Your task to perform on an android device: Open the Play Movies app and select the watchlist tab. Image 0: 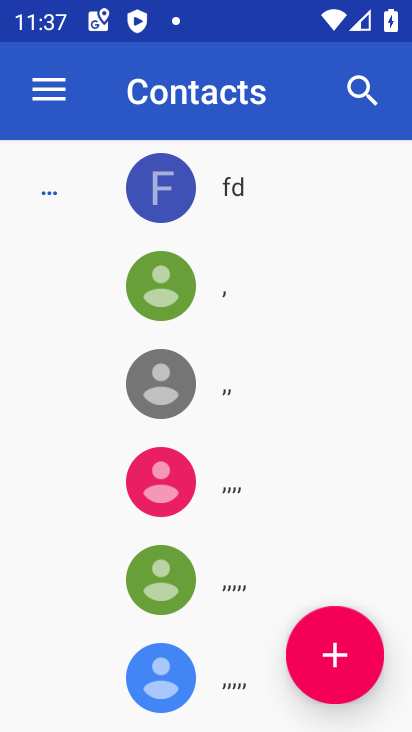
Step 0: press home button
Your task to perform on an android device: Open the Play Movies app and select the watchlist tab. Image 1: 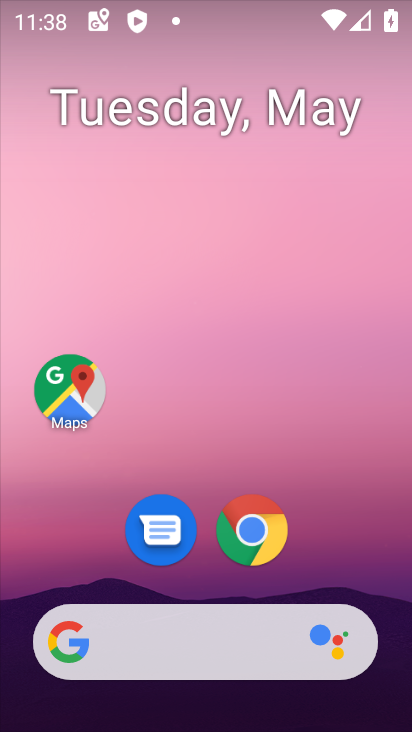
Step 1: drag from (209, 558) to (194, 118)
Your task to perform on an android device: Open the Play Movies app and select the watchlist tab. Image 2: 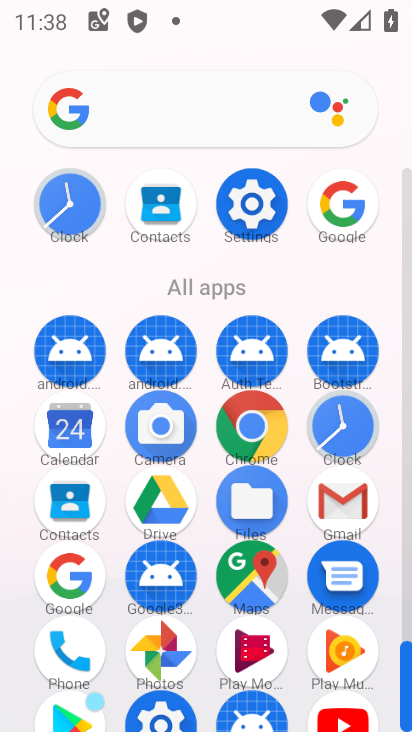
Step 2: click (248, 648)
Your task to perform on an android device: Open the Play Movies app and select the watchlist tab. Image 3: 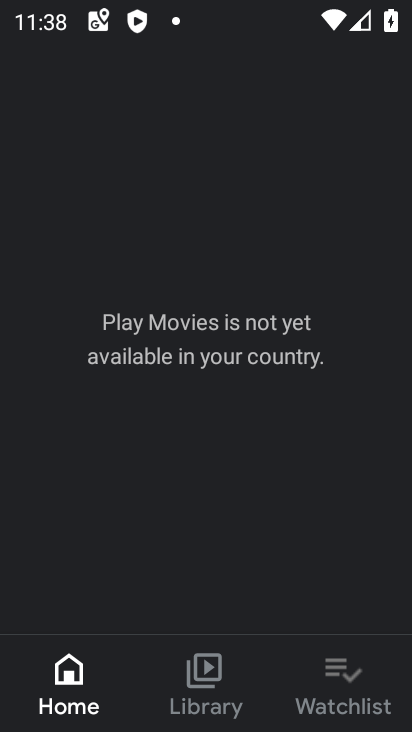
Step 3: click (320, 696)
Your task to perform on an android device: Open the Play Movies app and select the watchlist tab. Image 4: 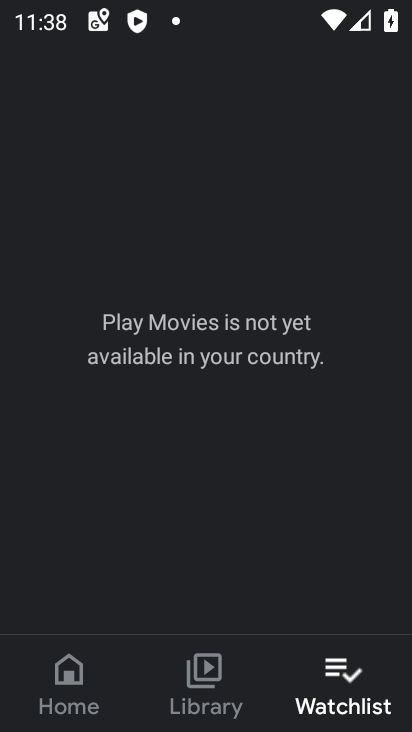
Step 4: task complete